Your task to perform on an android device: turn off notifications settings in the gmail app Image 0: 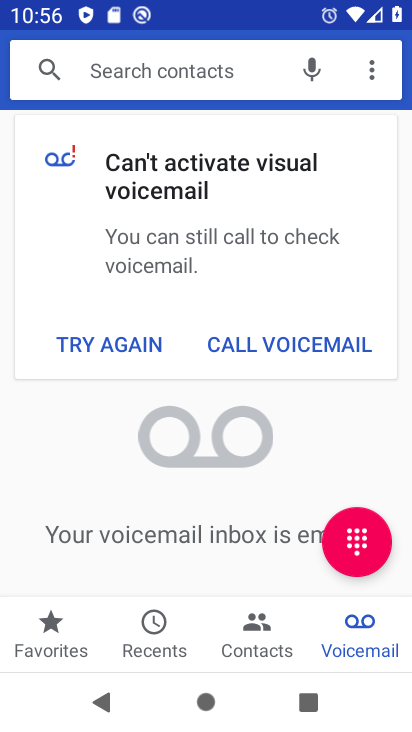
Step 0: press home button
Your task to perform on an android device: turn off notifications settings in the gmail app Image 1: 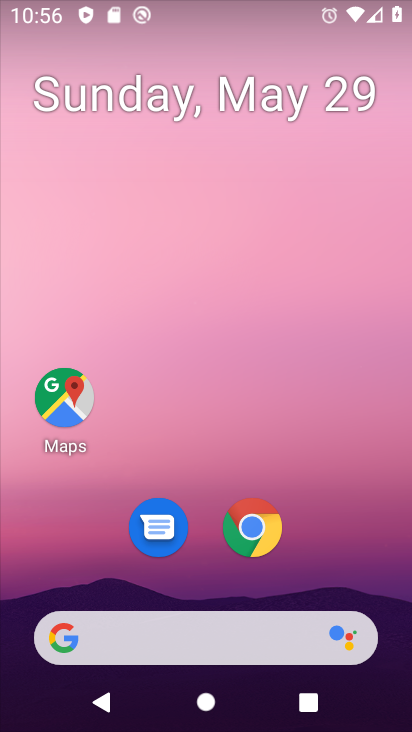
Step 1: drag from (214, 585) to (192, 100)
Your task to perform on an android device: turn off notifications settings in the gmail app Image 2: 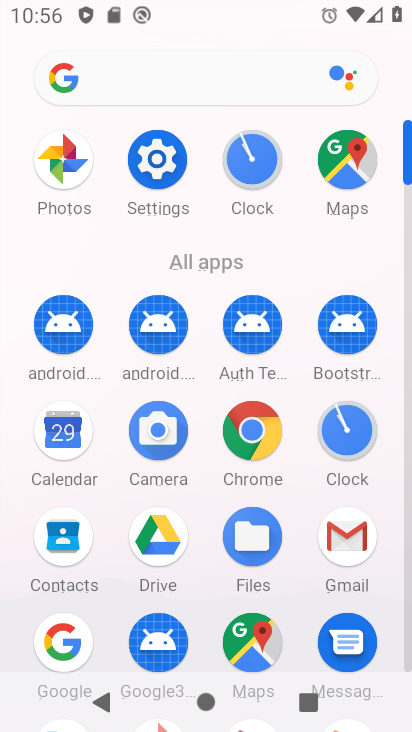
Step 2: click (347, 539)
Your task to perform on an android device: turn off notifications settings in the gmail app Image 3: 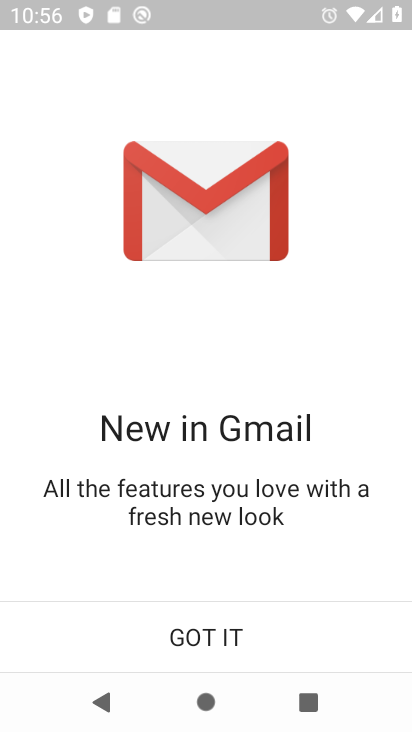
Step 3: click (152, 622)
Your task to perform on an android device: turn off notifications settings in the gmail app Image 4: 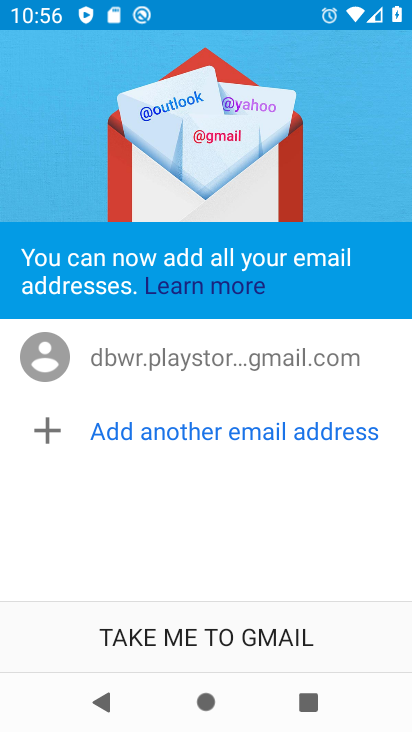
Step 4: click (180, 626)
Your task to perform on an android device: turn off notifications settings in the gmail app Image 5: 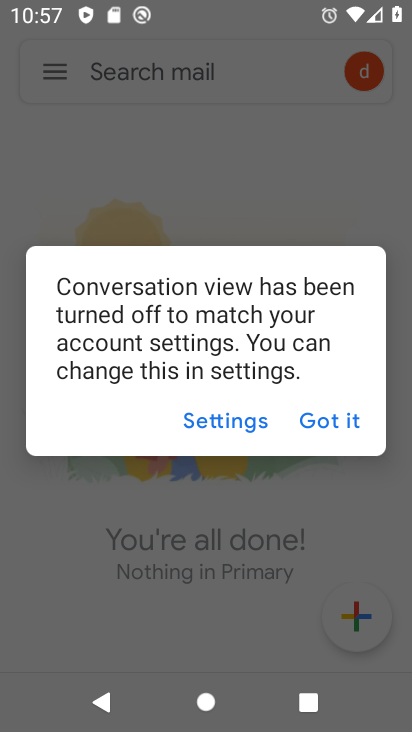
Step 5: click (325, 416)
Your task to perform on an android device: turn off notifications settings in the gmail app Image 6: 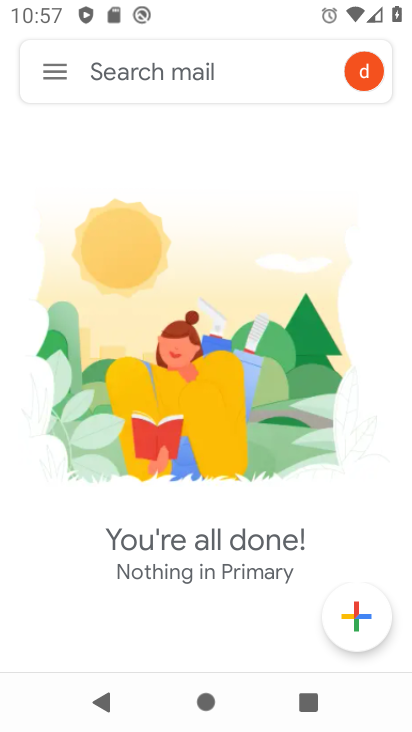
Step 6: click (44, 66)
Your task to perform on an android device: turn off notifications settings in the gmail app Image 7: 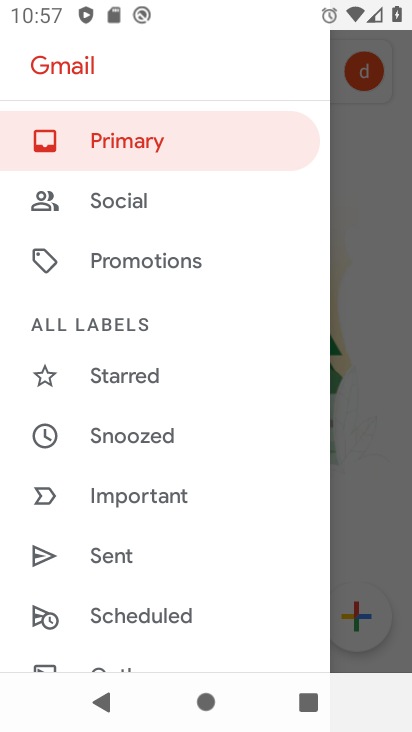
Step 7: drag from (95, 623) to (151, 173)
Your task to perform on an android device: turn off notifications settings in the gmail app Image 8: 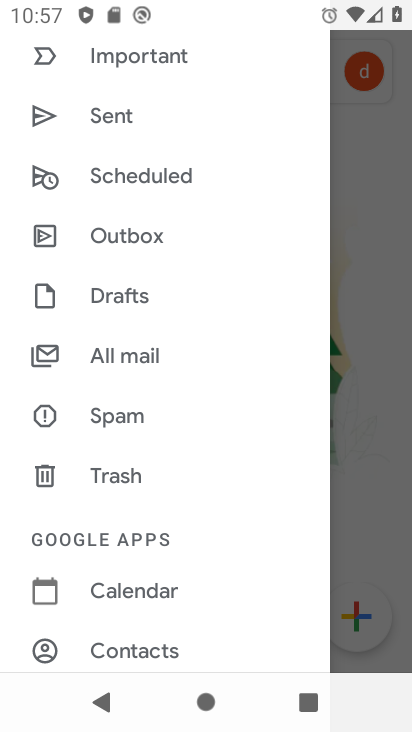
Step 8: drag from (125, 633) to (181, 154)
Your task to perform on an android device: turn off notifications settings in the gmail app Image 9: 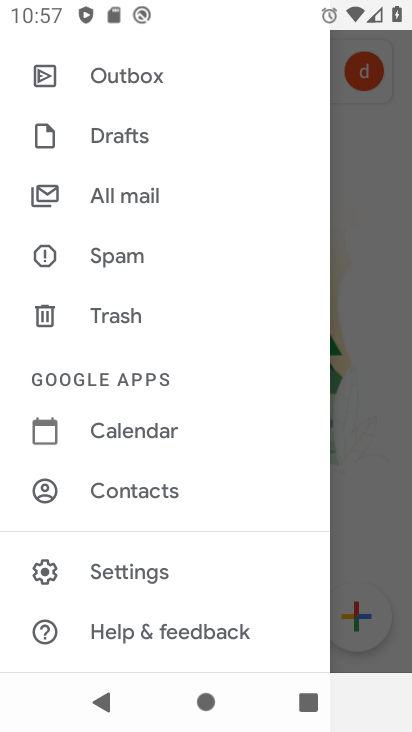
Step 9: click (96, 572)
Your task to perform on an android device: turn off notifications settings in the gmail app Image 10: 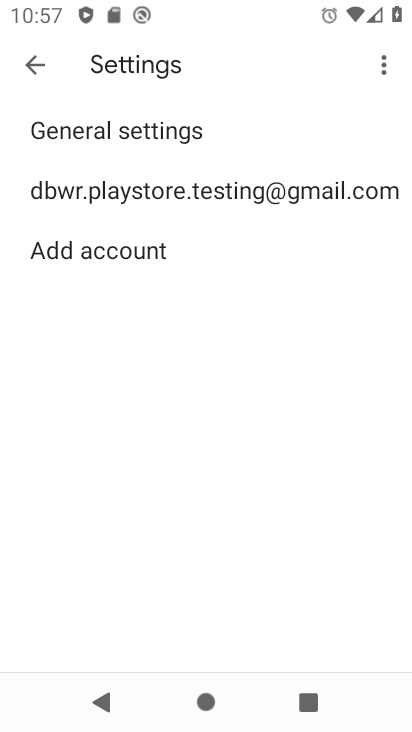
Step 10: click (240, 198)
Your task to perform on an android device: turn off notifications settings in the gmail app Image 11: 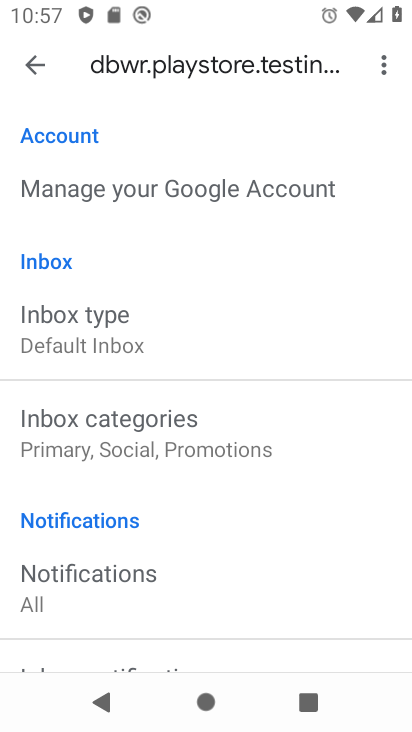
Step 11: click (77, 575)
Your task to perform on an android device: turn off notifications settings in the gmail app Image 12: 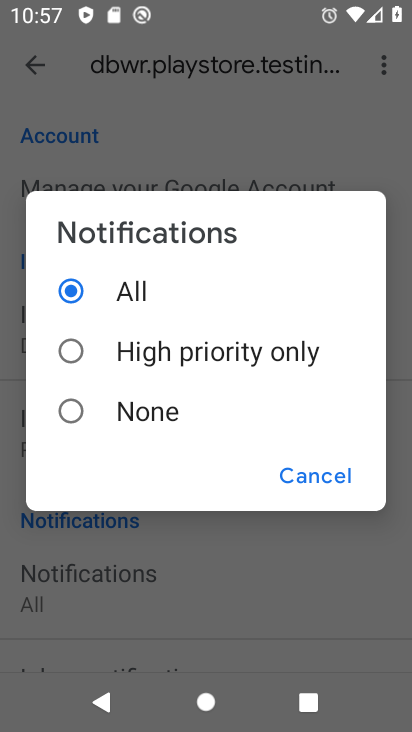
Step 12: click (196, 432)
Your task to perform on an android device: turn off notifications settings in the gmail app Image 13: 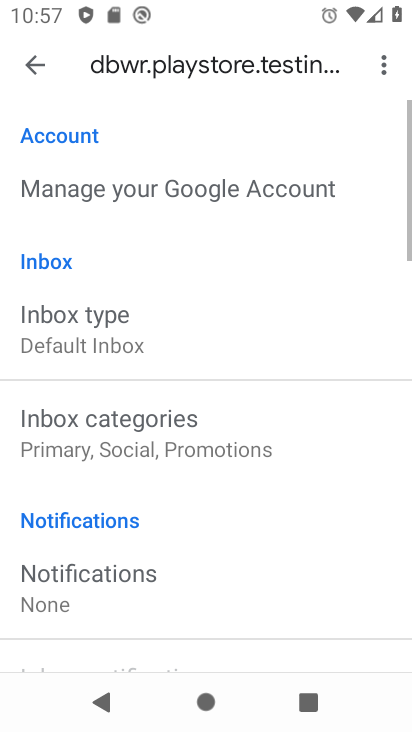
Step 13: task complete